Your task to perform on an android device: toggle translation in the chrome app Image 0: 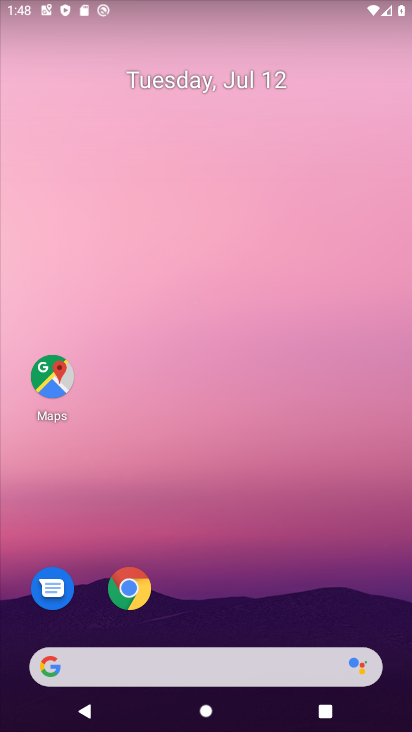
Step 0: drag from (206, 663) to (232, 27)
Your task to perform on an android device: toggle translation in the chrome app Image 1: 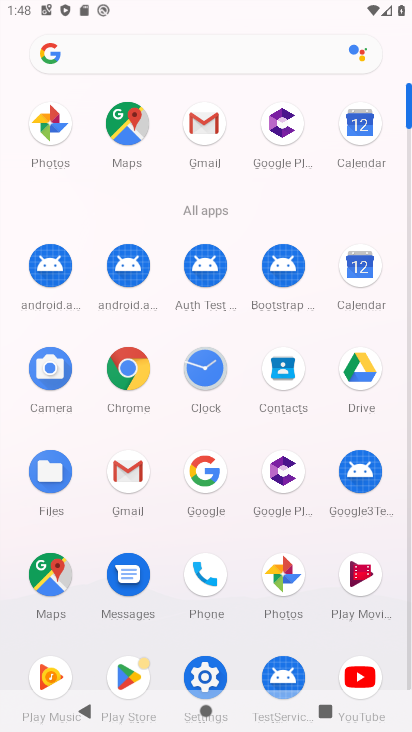
Step 1: click (130, 368)
Your task to perform on an android device: toggle translation in the chrome app Image 2: 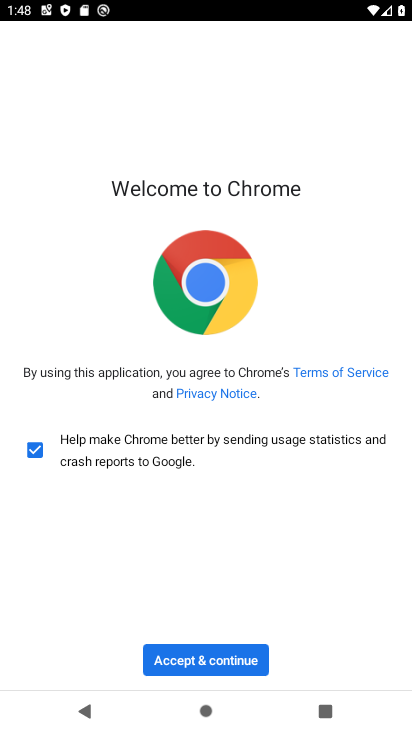
Step 2: click (219, 661)
Your task to perform on an android device: toggle translation in the chrome app Image 3: 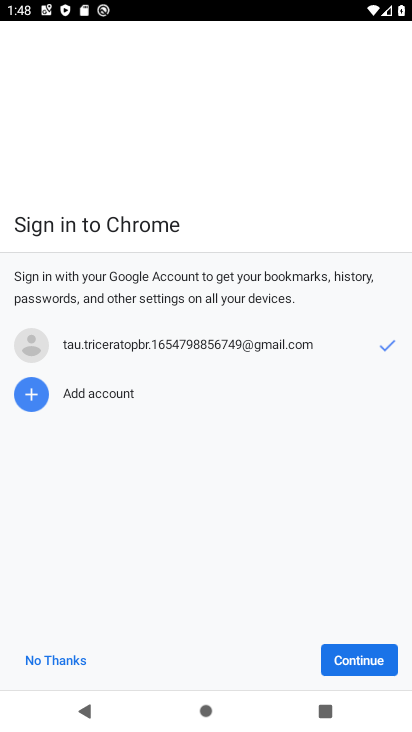
Step 3: click (333, 656)
Your task to perform on an android device: toggle translation in the chrome app Image 4: 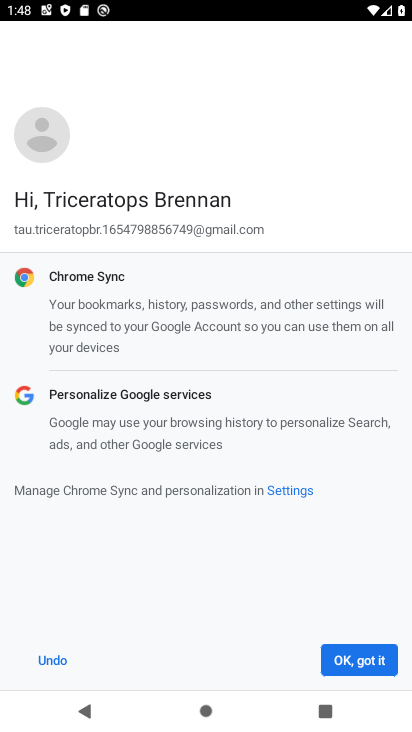
Step 4: click (364, 670)
Your task to perform on an android device: toggle translation in the chrome app Image 5: 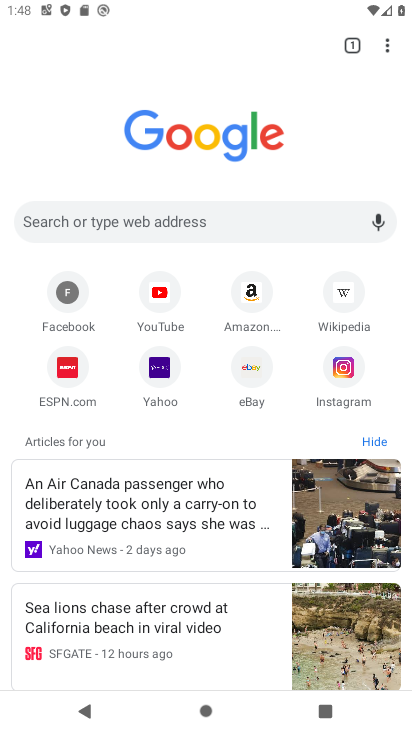
Step 5: click (391, 45)
Your task to perform on an android device: toggle translation in the chrome app Image 6: 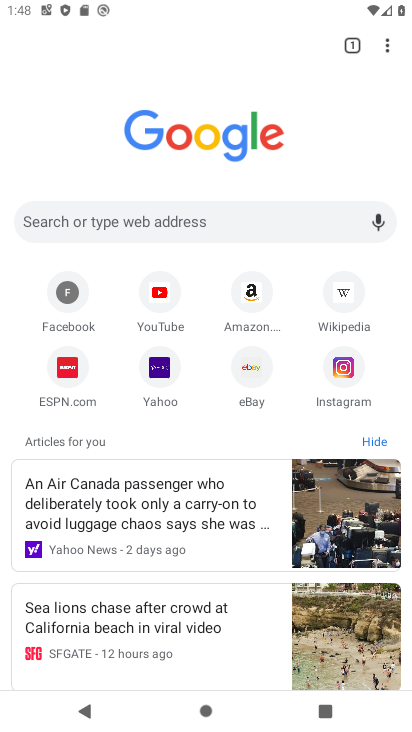
Step 6: drag from (391, 45) to (265, 371)
Your task to perform on an android device: toggle translation in the chrome app Image 7: 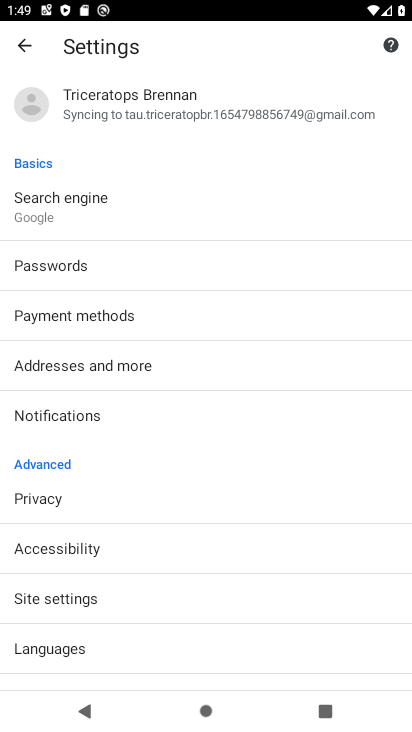
Step 7: click (94, 639)
Your task to perform on an android device: toggle translation in the chrome app Image 8: 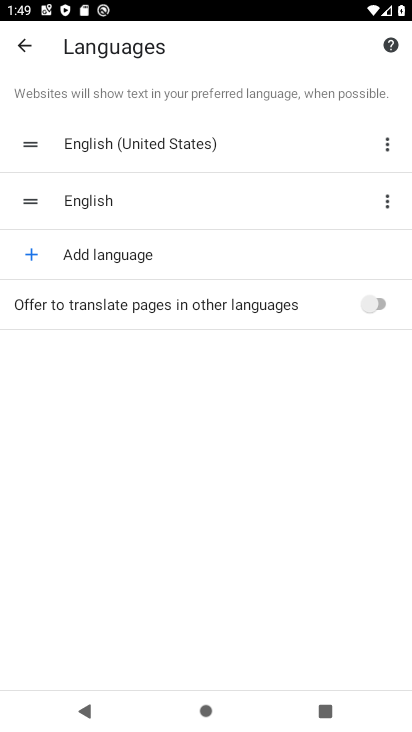
Step 8: click (376, 304)
Your task to perform on an android device: toggle translation in the chrome app Image 9: 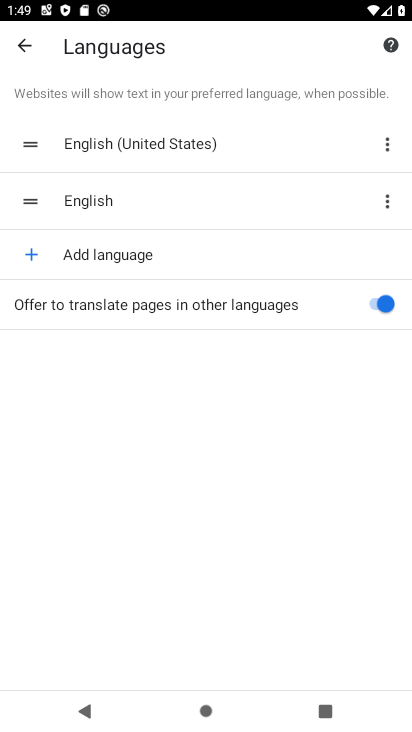
Step 9: task complete